Your task to perform on an android device: turn on location history Image 0: 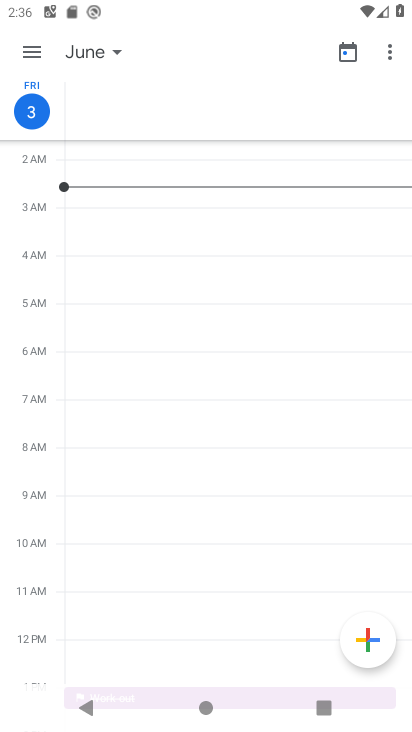
Step 0: press home button
Your task to perform on an android device: turn on location history Image 1: 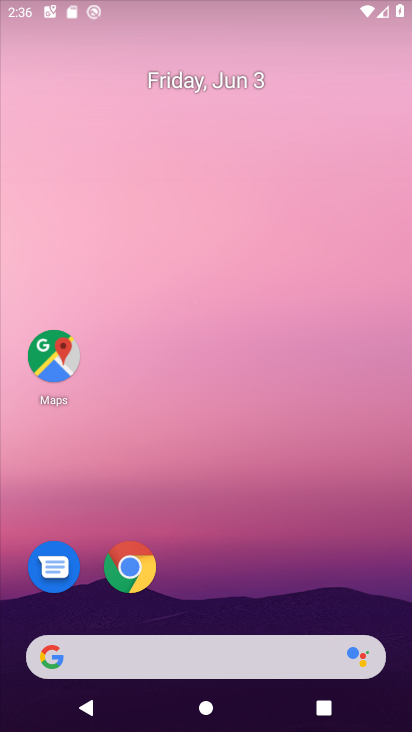
Step 1: drag from (237, 540) to (248, 265)
Your task to perform on an android device: turn on location history Image 2: 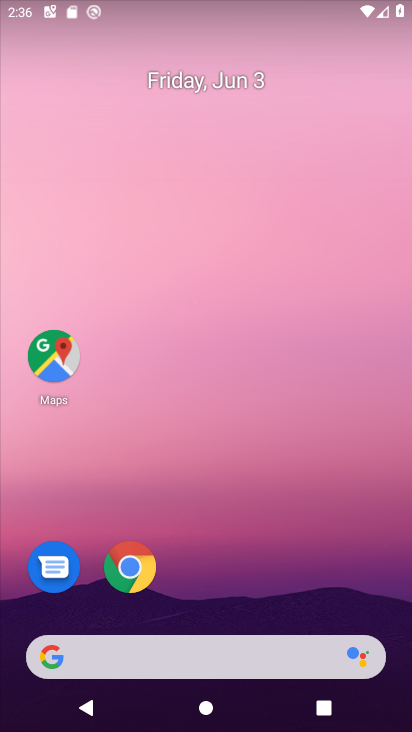
Step 2: drag from (198, 659) to (262, 211)
Your task to perform on an android device: turn on location history Image 3: 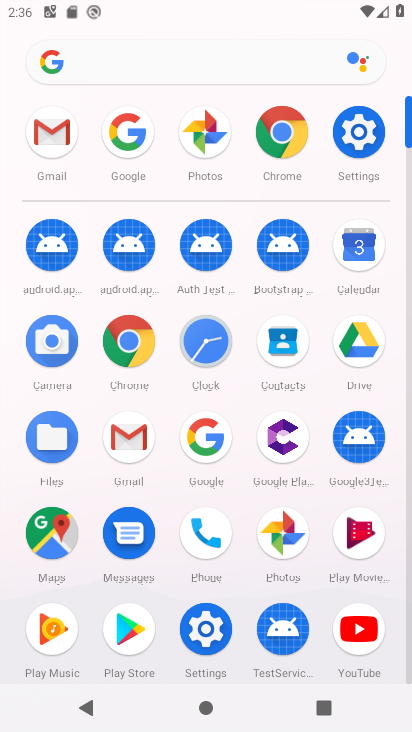
Step 3: click (49, 529)
Your task to perform on an android device: turn on location history Image 4: 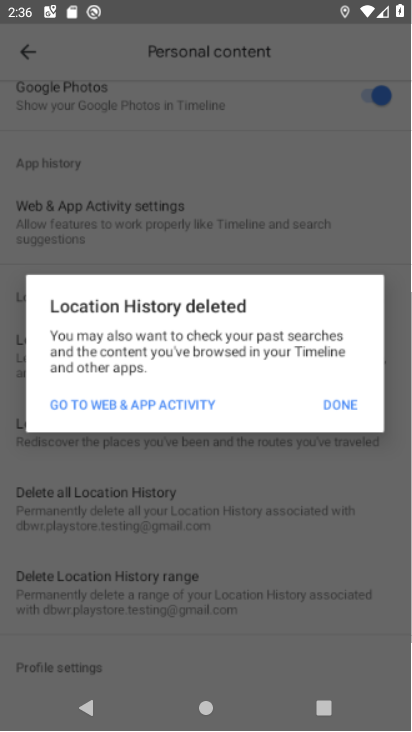
Step 4: click (331, 393)
Your task to perform on an android device: turn on location history Image 5: 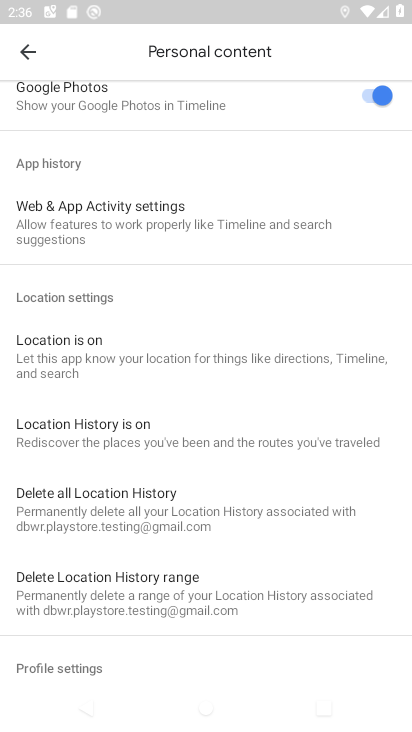
Step 5: click (168, 447)
Your task to perform on an android device: turn on location history Image 6: 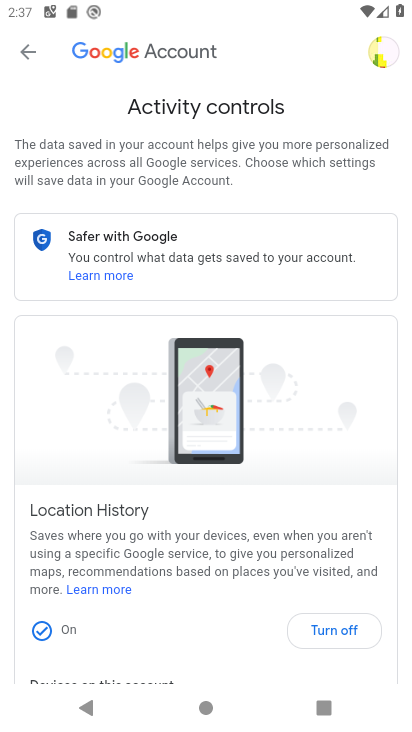
Step 6: task complete